Your task to perform on an android device: Go to network settings Image 0: 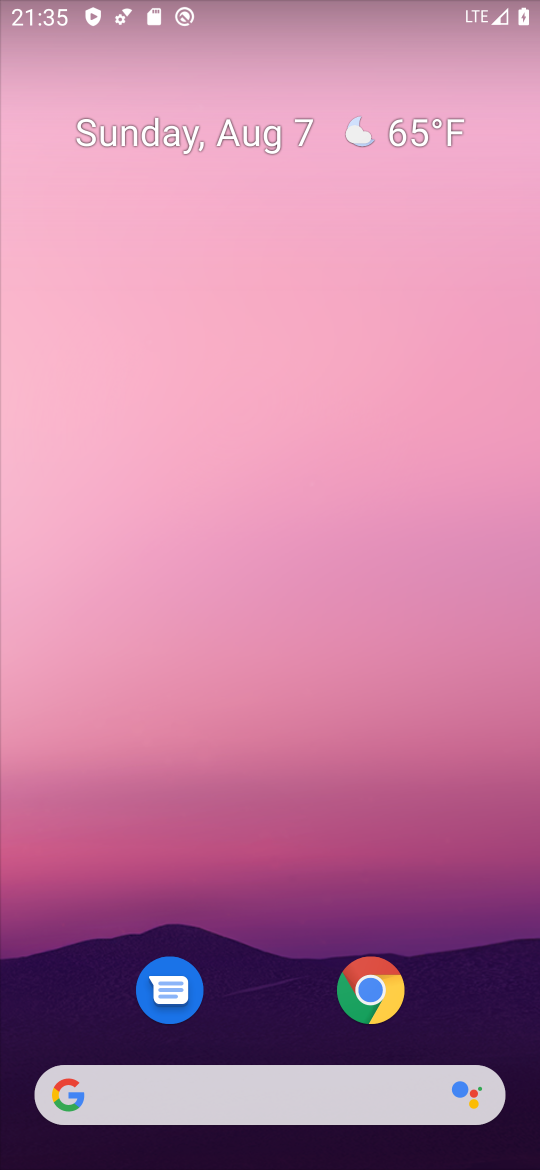
Step 0: drag from (265, 999) to (340, 54)
Your task to perform on an android device: Go to network settings Image 1: 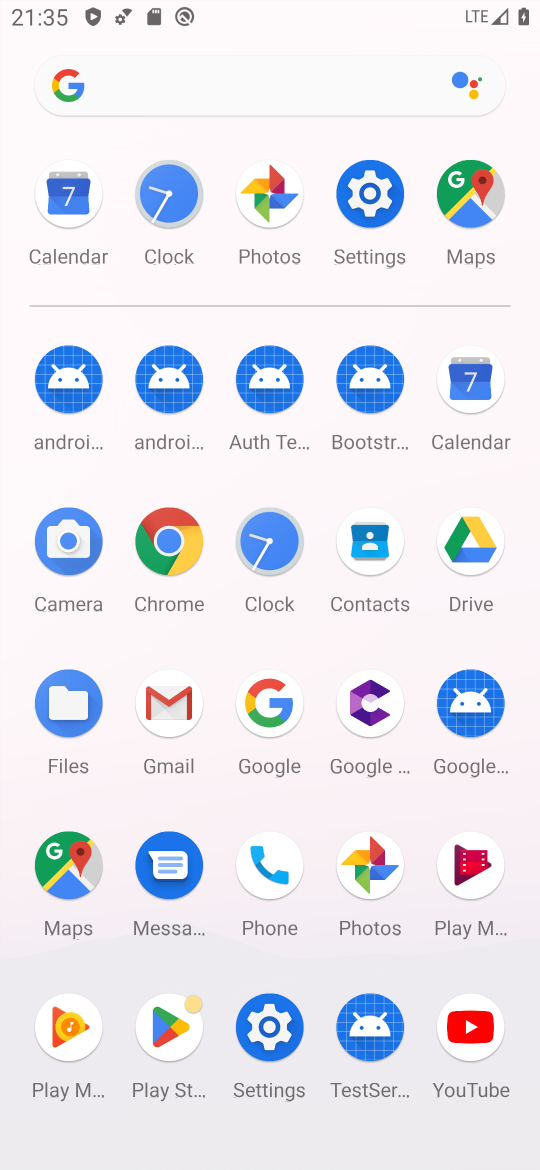
Step 1: click (376, 204)
Your task to perform on an android device: Go to network settings Image 2: 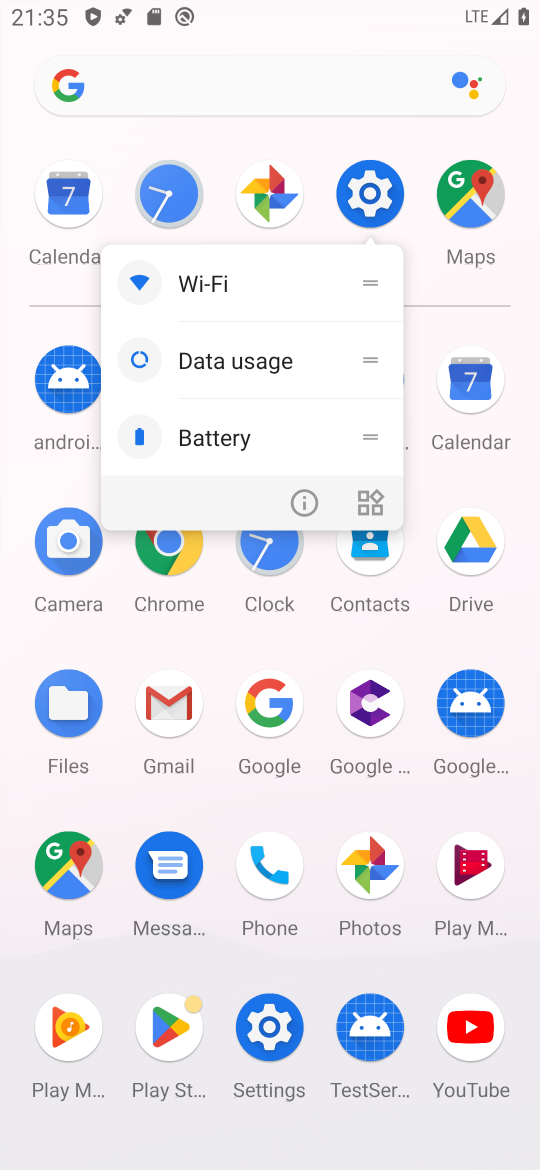
Step 2: click (376, 206)
Your task to perform on an android device: Go to network settings Image 3: 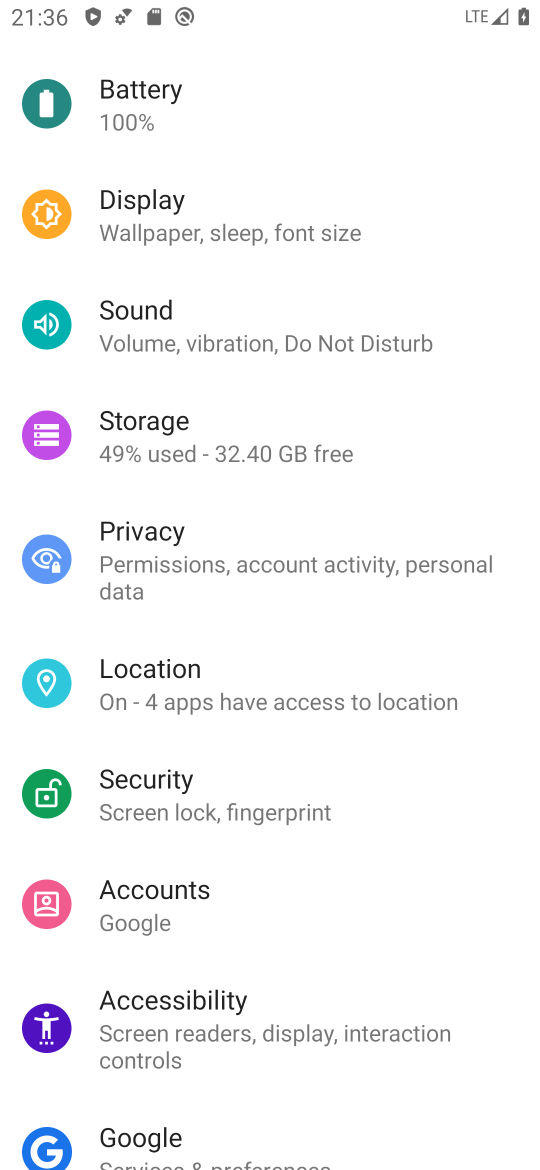
Step 3: drag from (285, 278) to (249, 929)
Your task to perform on an android device: Go to network settings Image 4: 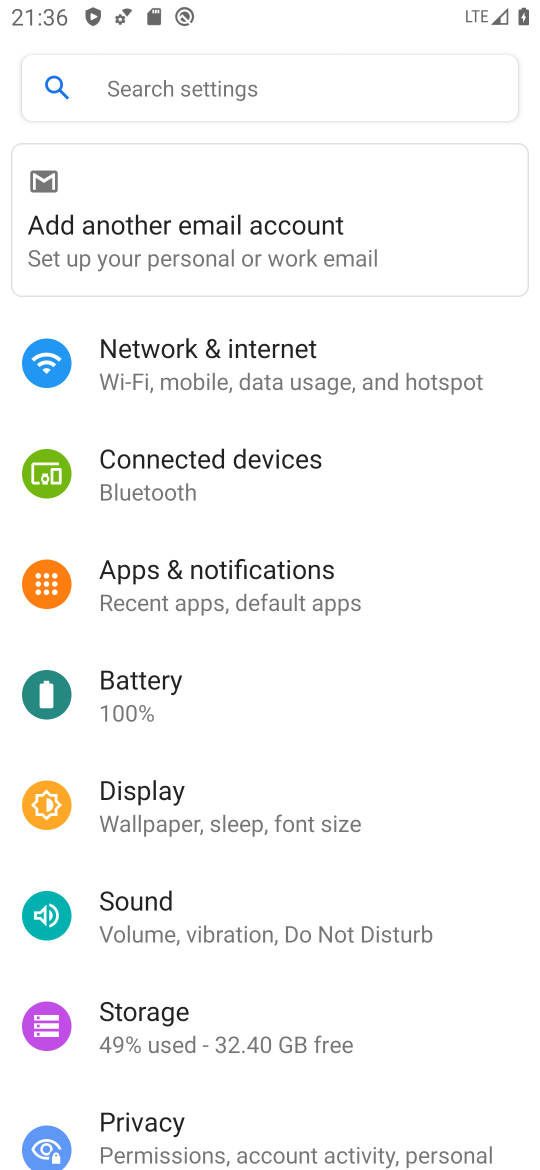
Step 4: click (247, 363)
Your task to perform on an android device: Go to network settings Image 5: 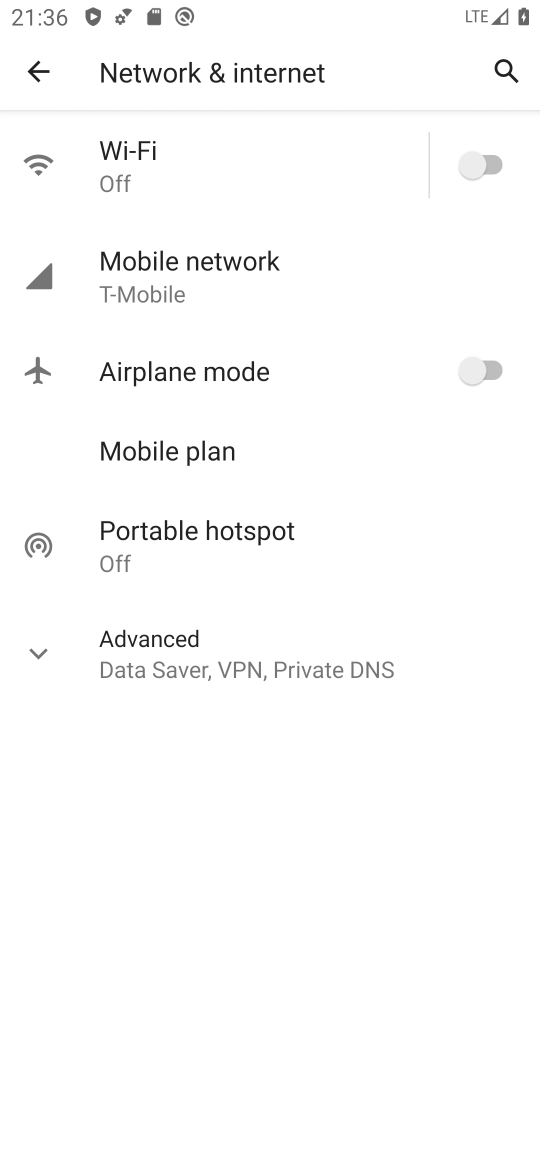
Step 5: task complete